Your task to perform on an android device: When is my next appointment? Image 0: 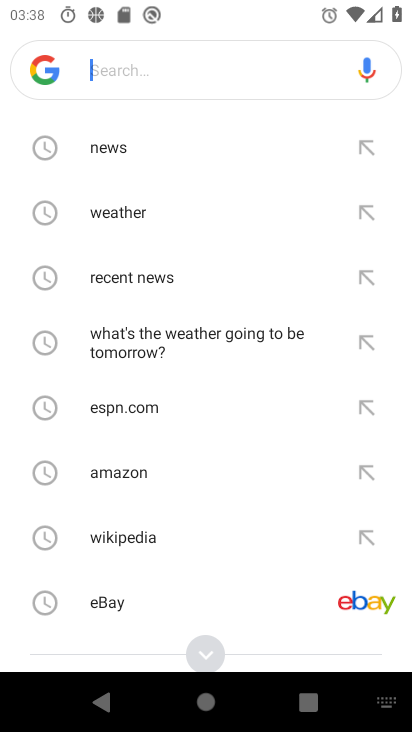
Step 0: press home button
Your task to perform on an android device: When is my next appointment? Image 1: 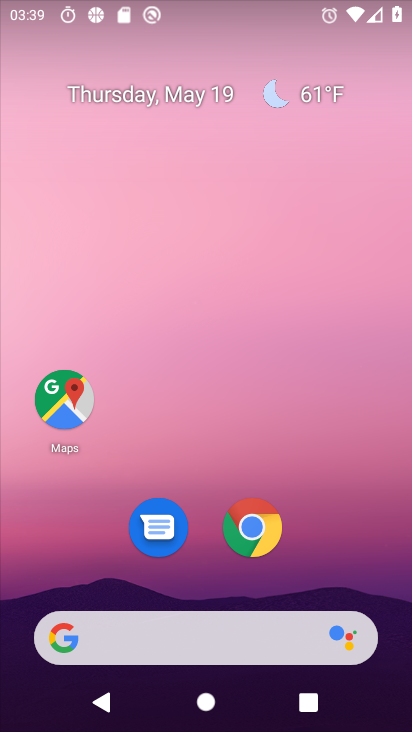
Step 1: drag from (212, 581) to (253, 79)
Your task to perform on an android device: When is my next appointment? Image 2: 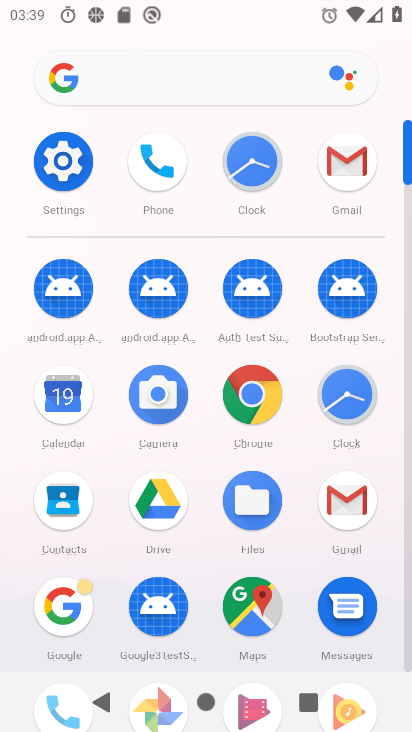
Step 2: click (51, 397)
Your task to perform on an android device: When is my next appointment? Image 3: 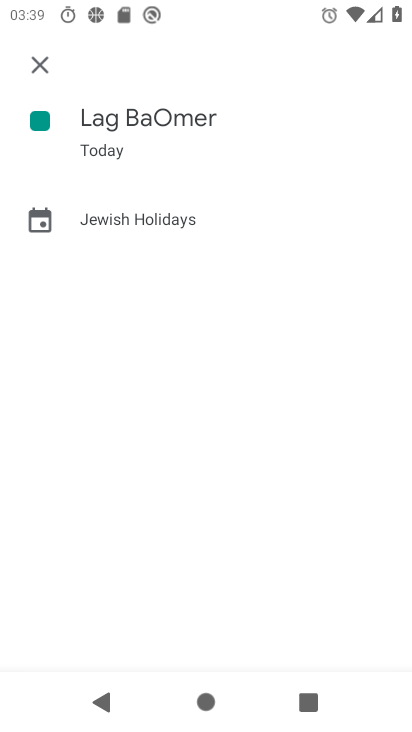
Step 3: click (31, 57)
Your task to perform on an android device: When is my next appointment? Image 4: 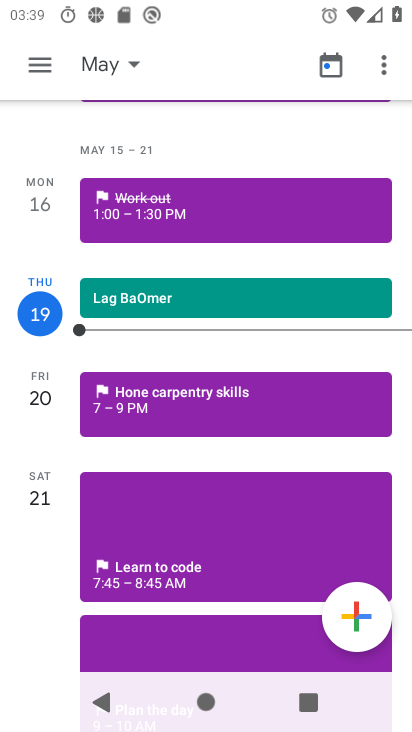
Step 4: task complete